Your task to perform on an android device: Open settings on Google Maps Image 0: 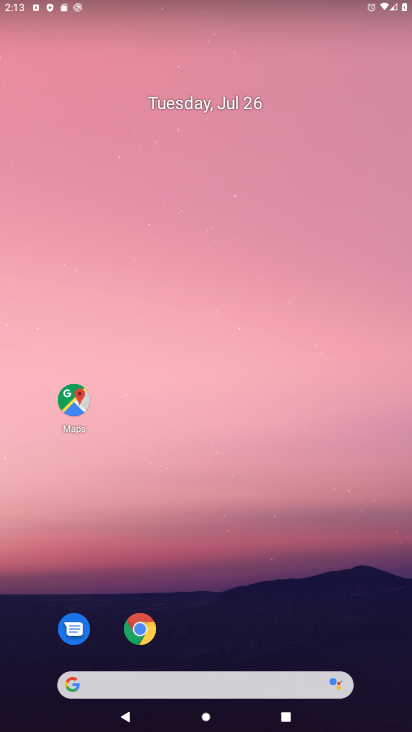
Step 0: click (73, 400)
Your task to perform on an android device: Open settings on Google Maps Image 1: 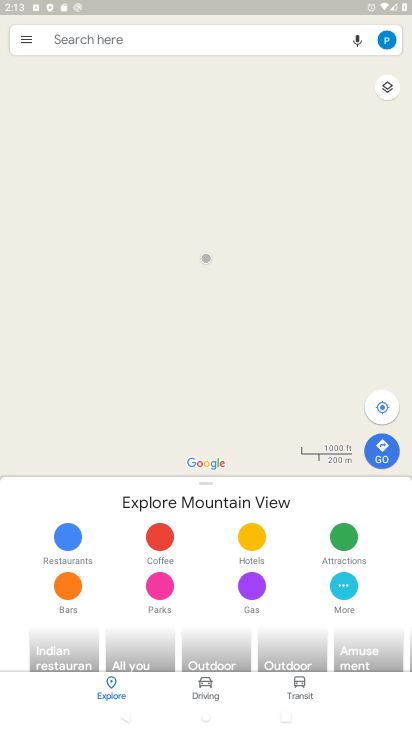
Step 1: click (24, 40)
Your task to perform on an android device: Open settings on Google Maps Image 2: 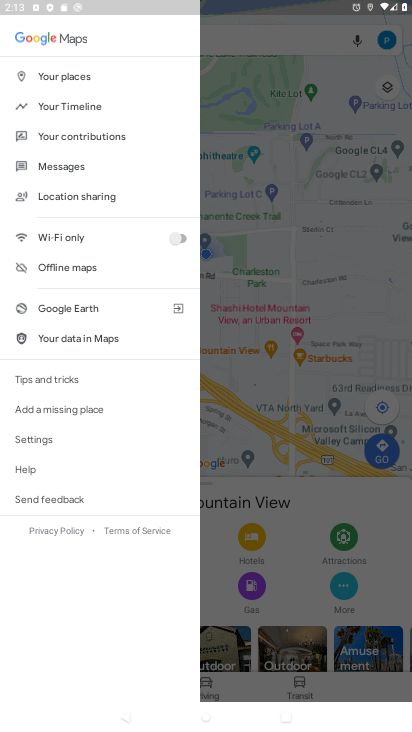
Step 2: click (38, 442)
Your task to perform on an android device: Open settings on Google Maps Image 3: 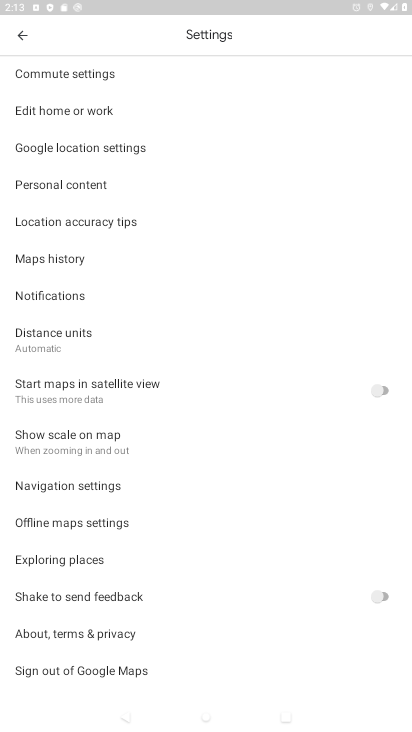
Step 3: task complete